Your task to perform on an android device: Go to Google maps Image 0: 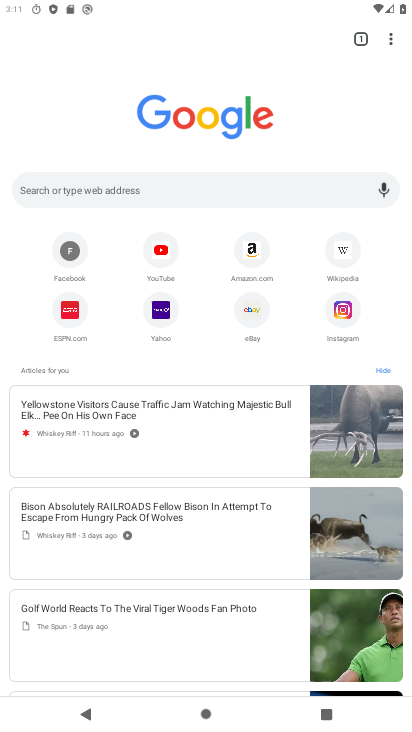
Step 0: press home button
Your task to perform on an android device: Go to Google maps Image 1: 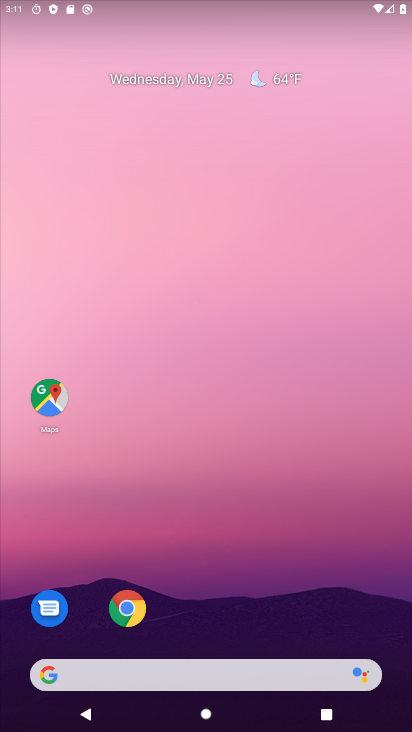
Step 1: click (39, 400)
Your task to perform on an android device: Go to Google maps Image 2: 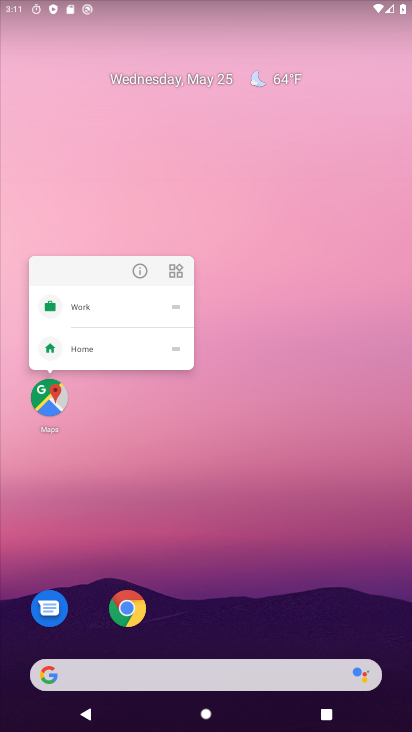
Step 2: click (39, 400)
Your task to perform on an android device: Go to Google maps Image 3: 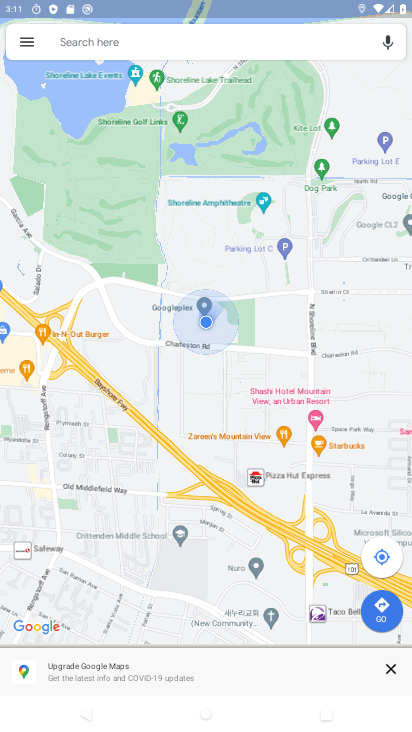
Step 3: task complete